Your task to perform on an android device: Go to Amazon Image 0: 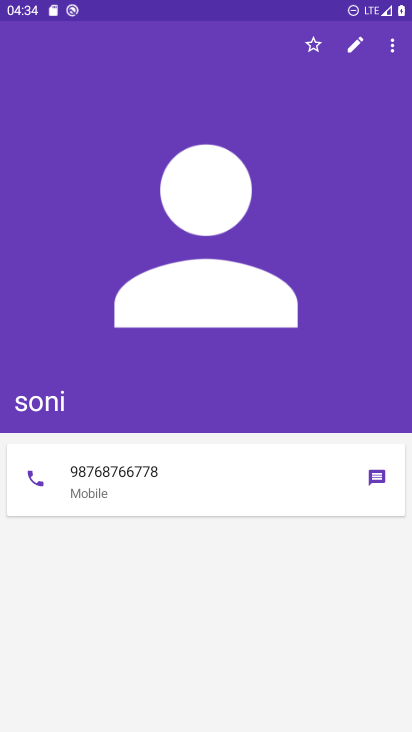
Step 0: press home button
Your task to perform on an android device: Go to Amazon Image 1: 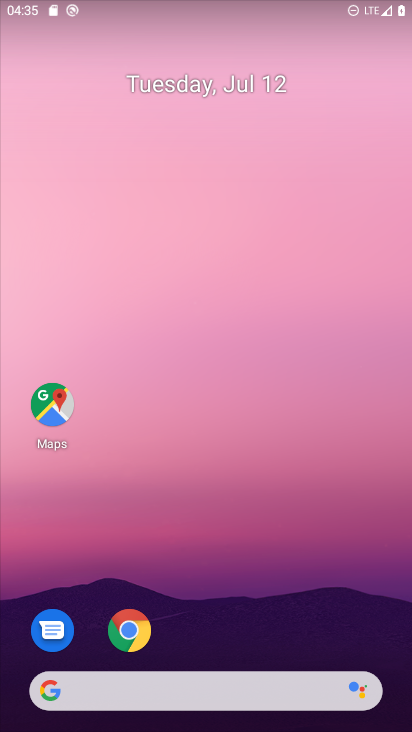
Step 1: drag from (201, 619) to (264, 64)
Your task to perform on an android device: Go to Amazon Image 2: 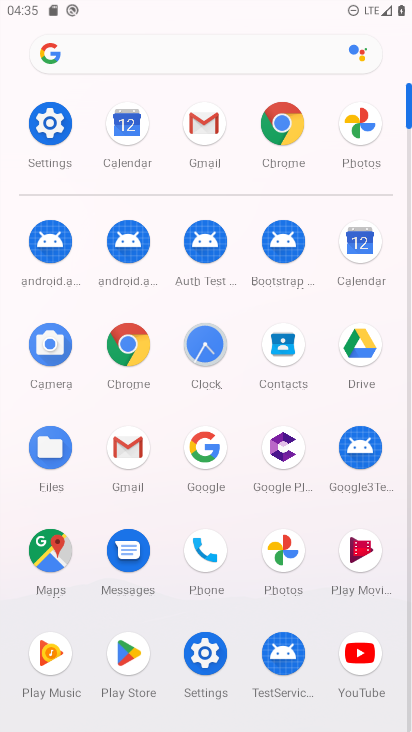
Step 2: click (126, 336)
Your task to perform on an android device: Go to Amazon Image 3: 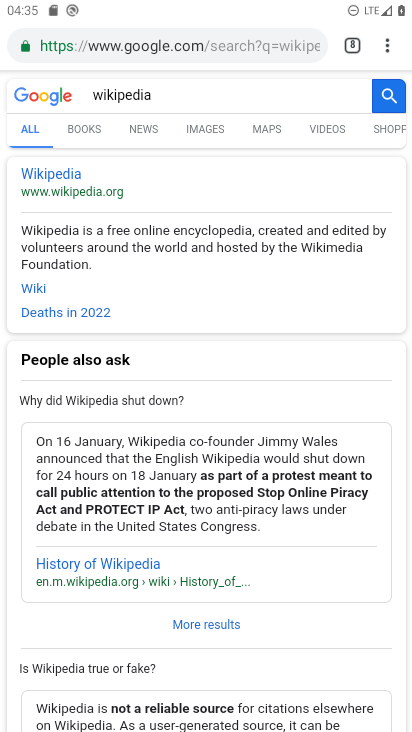
Step 3: drag from (384, 41) to (351, 86)
Your task to perform on an android device: Go to Amazon Image 4: 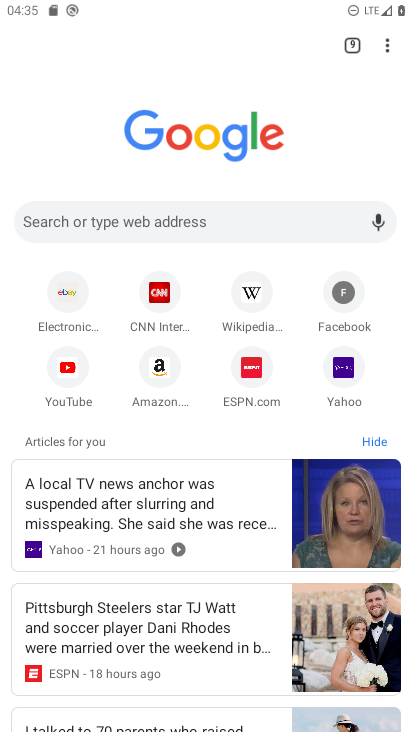
Step 4: click (177, 366)
Your task to perform on an android device: Go to Amazon Image 5: 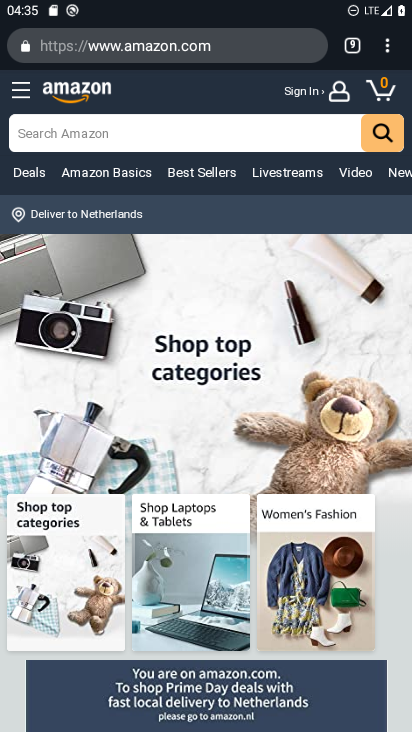
Step 5: task complete